Your task to perform on an android device: Go to CNN.com Image 0: 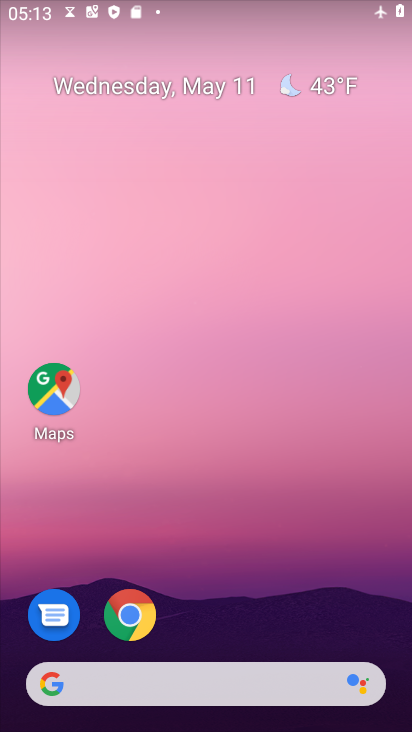
Step 0: drag from (242, 566) to (203, 47)
Your task to perform on an android device: Go to CNN.com Image 1: 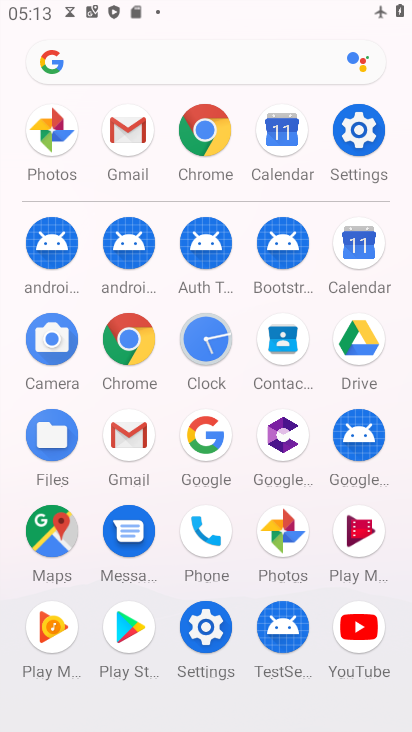
Step 1: click (201, 126)
Your task to perform on an android device: Go to CNN.com Image 2: 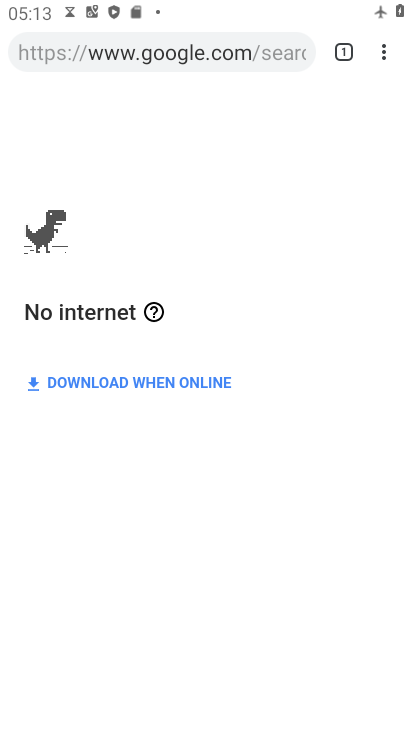
Step 2: click (198, 47)
Your task to perform on an android device: Go to CNN.com Image 3: 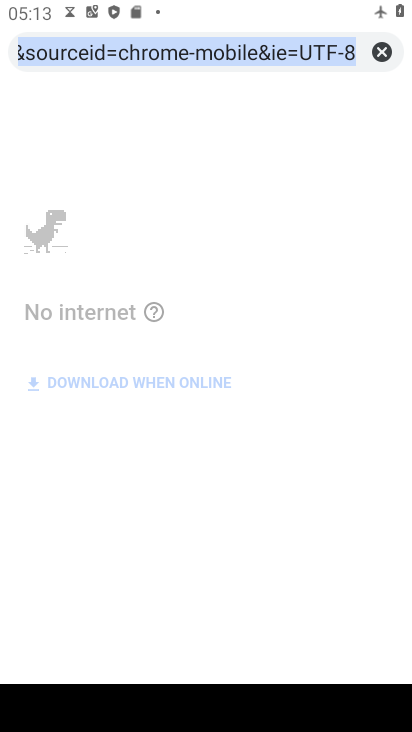
Step 3: click (382, 54)
Your task to perform on an android device: Go to CNN.com Image 4: 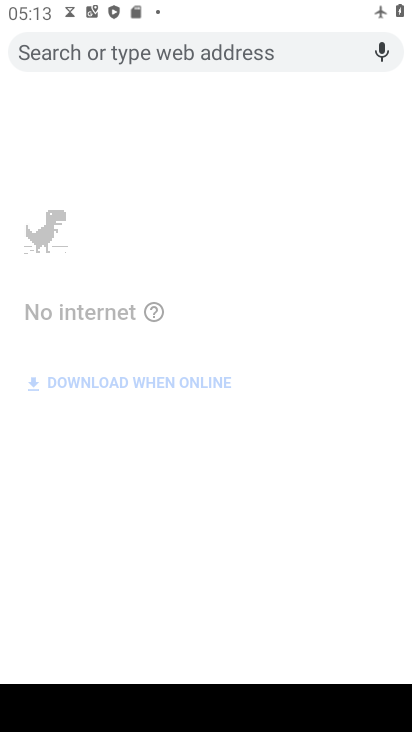
Step 4: type " CNN.com"
Your task to perform on an android device: Go to CNN.com Image 5: 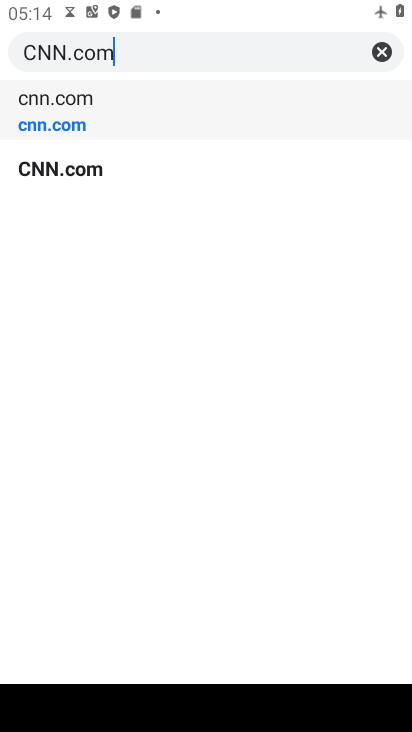
Step 5: type ""
Your task to perform on an android device: Go to CNN.com Image 6: 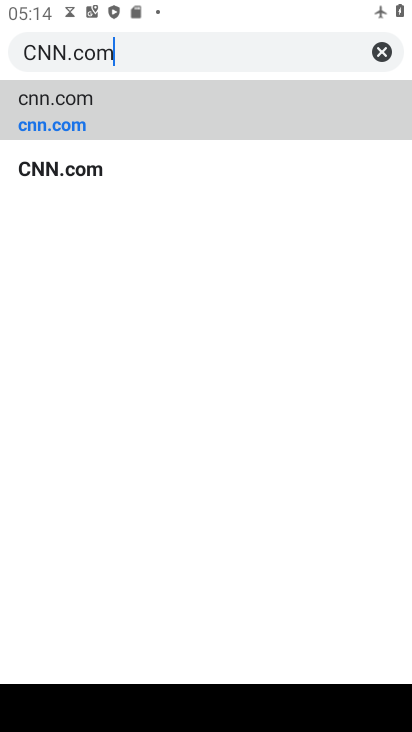
Step 6: click (162, 122)
Your task to perform on an android device: Go to CNN.com Image 7: 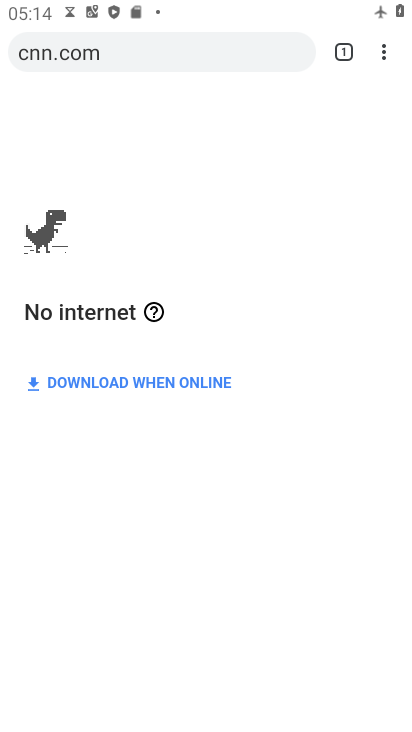
Step 7: drag from (296, 0) to (327, 433)
Your task to perform on an android device: Go to CNN.com Image 8: 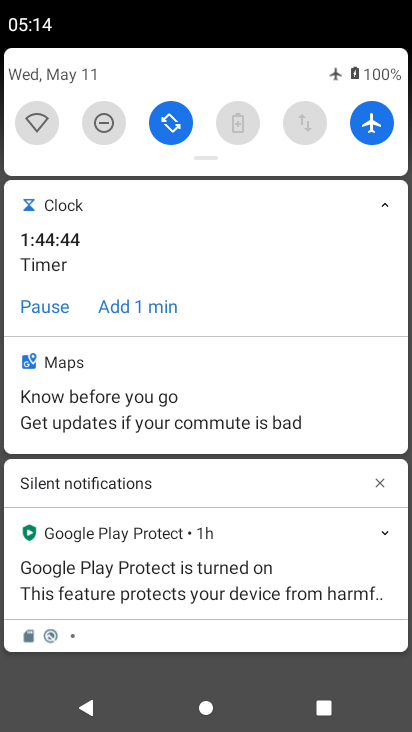
Step 8: click (42, 118)
Your task to perform on an android device: Go to CNN.com Image 9: 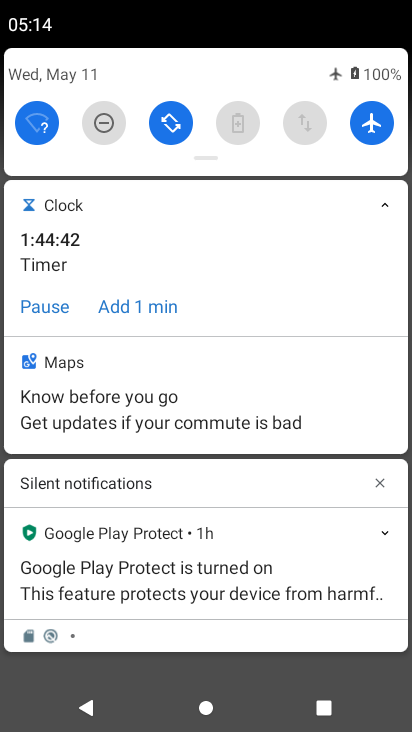
Step 9: task complete